Your task to perform on an android device: Go to wifi settings Image 0: 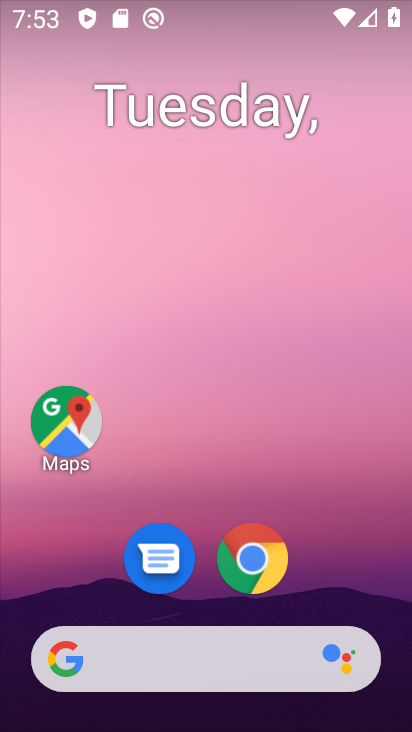
Step 0: drag from (211, 623) to (337, 13)
Your task to perform on an android device: Go to wifi settings Image 1: 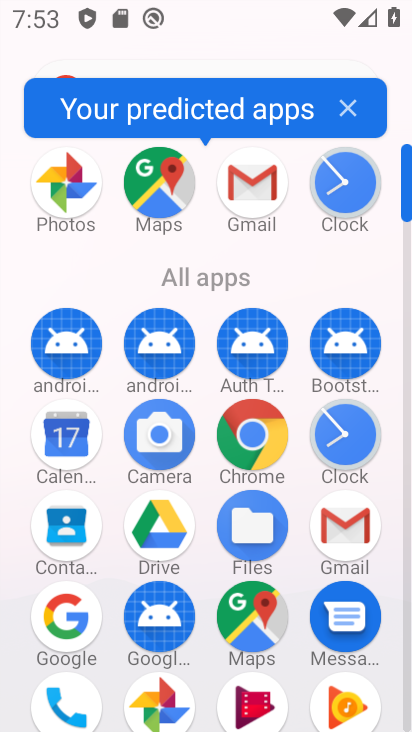
Step 1: drag from (207, 557) to (188, 86)
Your task to perform on an android device: Go to wifi settings Image 2: 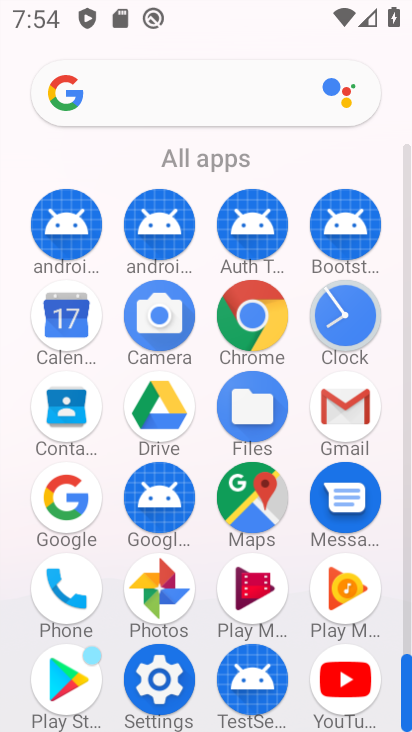
Step 2: click (174, 662)
Your task to perform on an android device: Go to wifi settings Image 3: 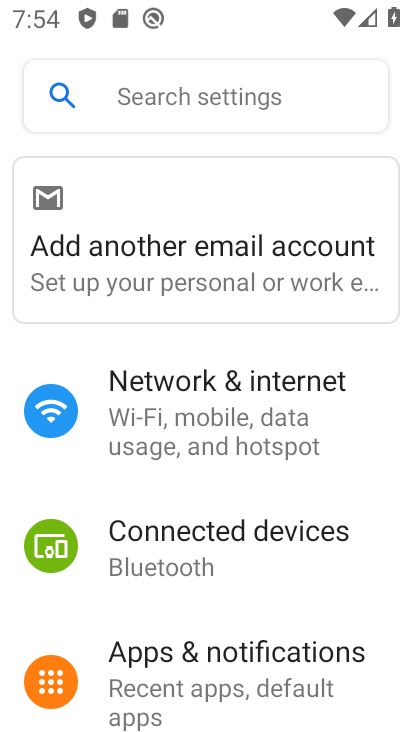
Step 3: click (175, 433)
Your task to perform on an android device: Go to wifi settings Image 4: 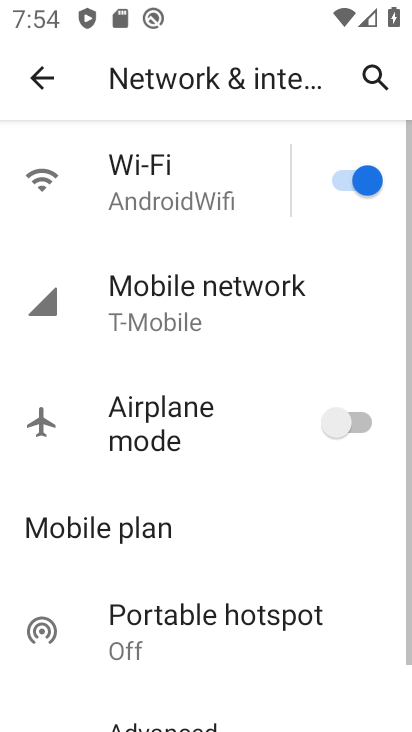
Step 4: click (173, 191)
Your task to perform on an android device: Go to wifi settings Image 5: 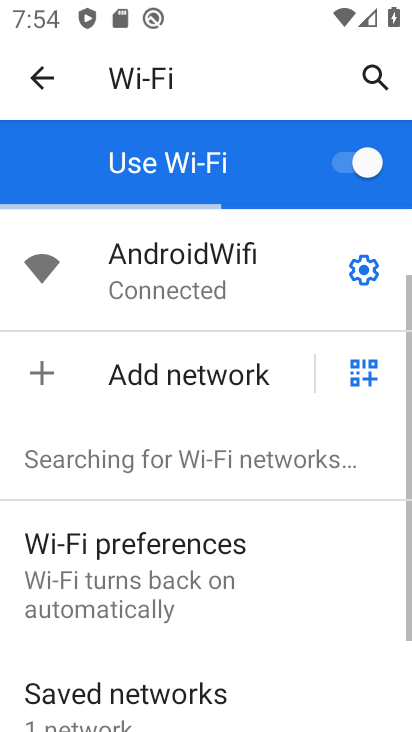
Step 5: task complete